Your task to perform on an android device: toggle notifications settings in the gmail app Image 0: 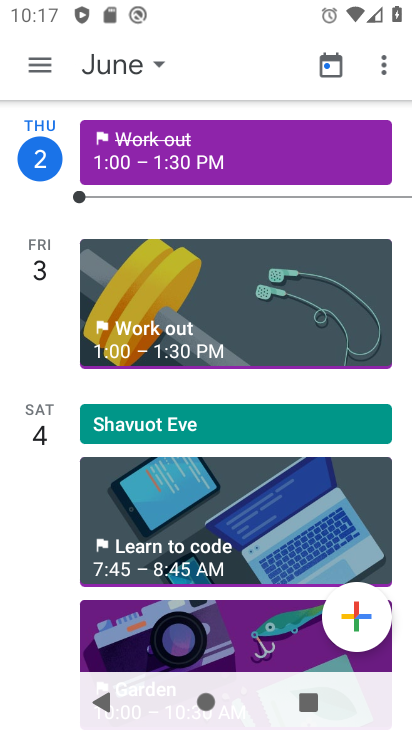
Step 0: press home button
Your task to perform on an android device: toggle notifications settings in the gmail app Image 1: 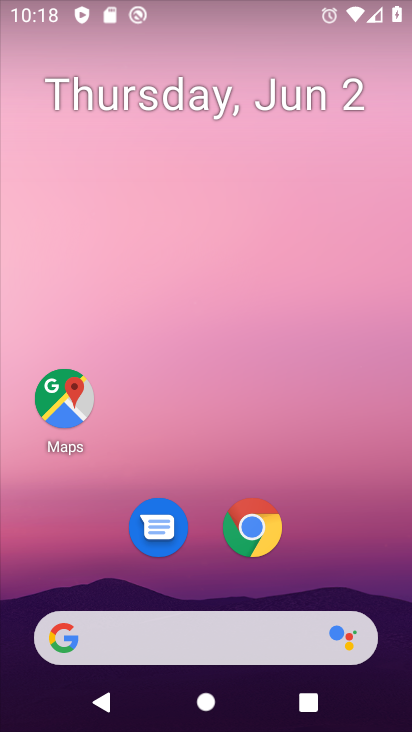
Step 1: drag from (229, 614) to (199, 11)
Your task to perform on an android device: toggle notifications settings in the gmail app Image 2: 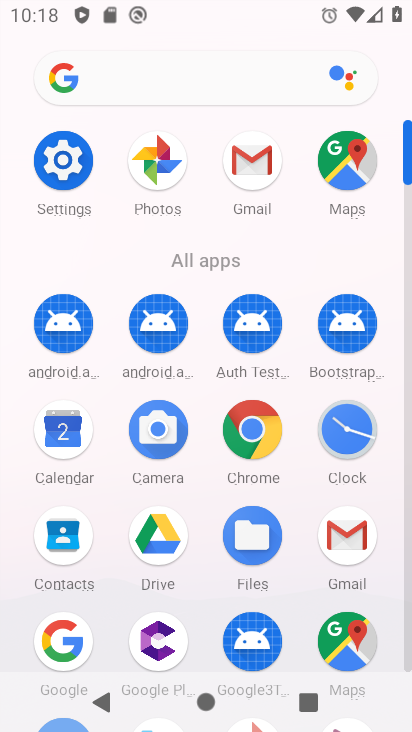
Step 2: click (346, 534)
Your task to perform on an android device: toggle notifications settings in the gmail app Image 3: 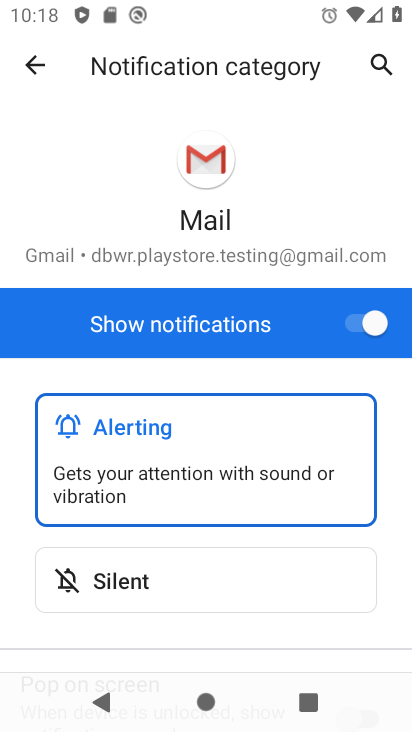
Step 3: click (352, 327)
Your task to perform on an android device: toggle notifications settings in the gmail app Image 4: 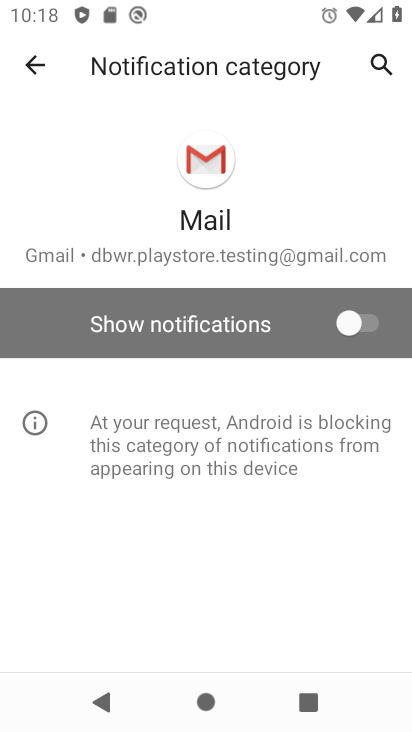
Step 4: task complete